Your task to perform on an android device: Open accessibility settings Image 0: 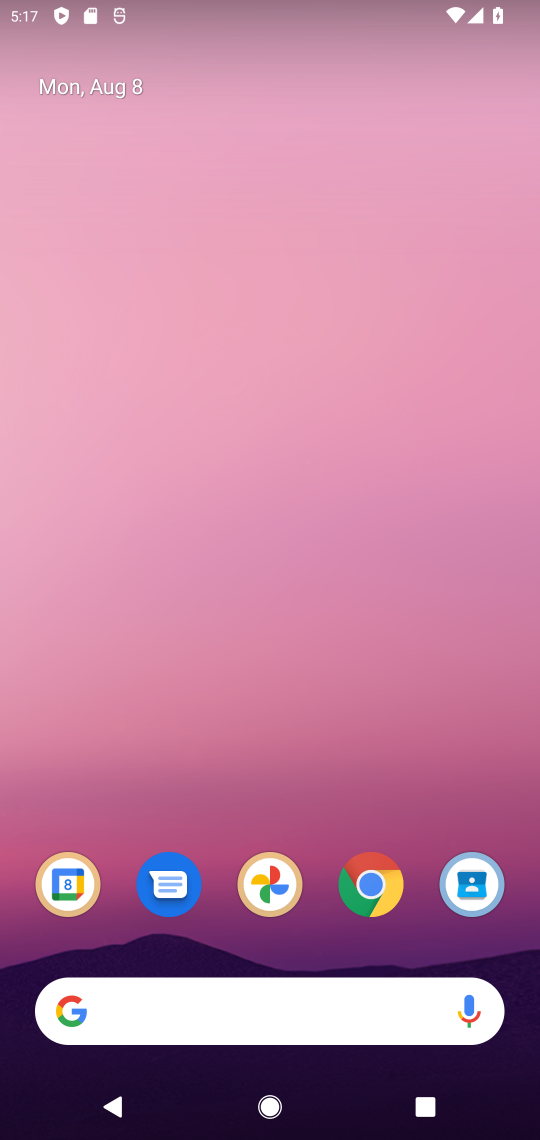
Step 0: drag from (397, 811) to (349, 68)
Your task to perform on an android device: Open accessibility settings Image 1: 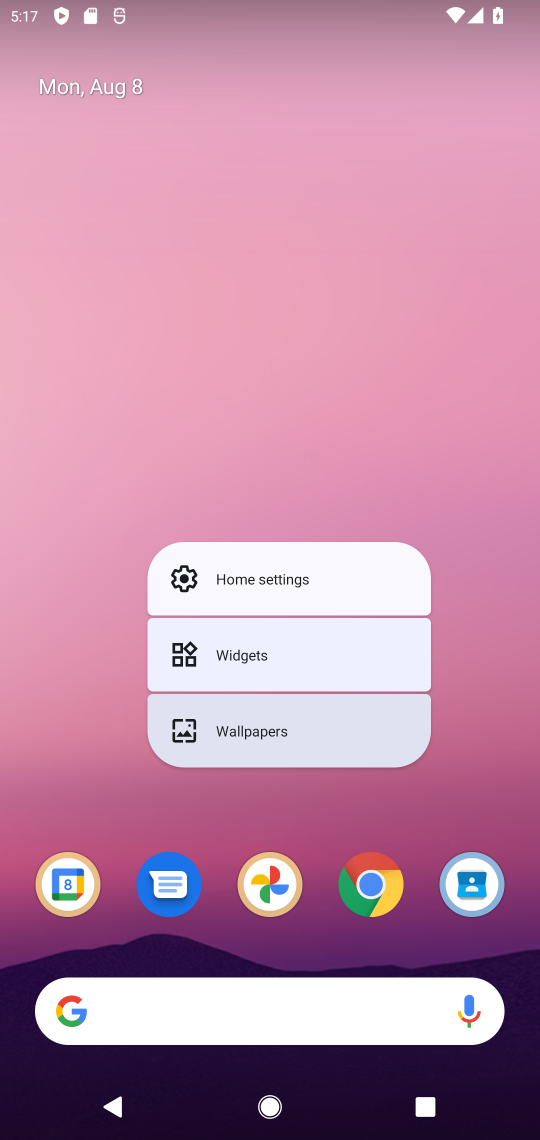
Step 1: drag from (526, 839) to (526, 236)
Your task to perform on an android device: Open accessibility settings Image 2: 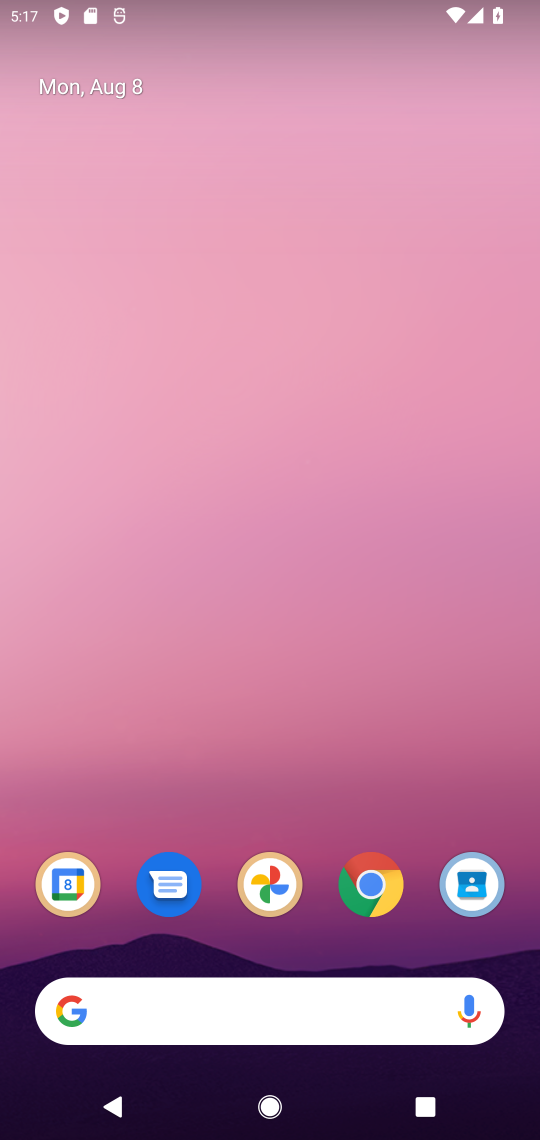
Step 2: drag from (301, 832) to (369, 93)
Your task to perform on an android device: Open accessibility settings Image 3: 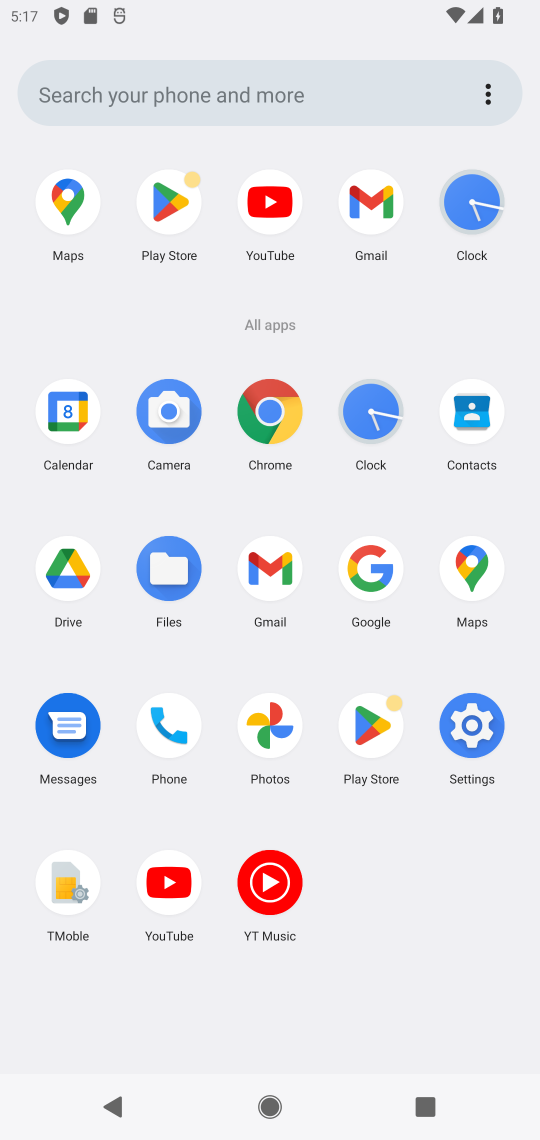
Step 3: click (464, 712)
Your task to perform on an android device: Open accessibility settings Image 4: 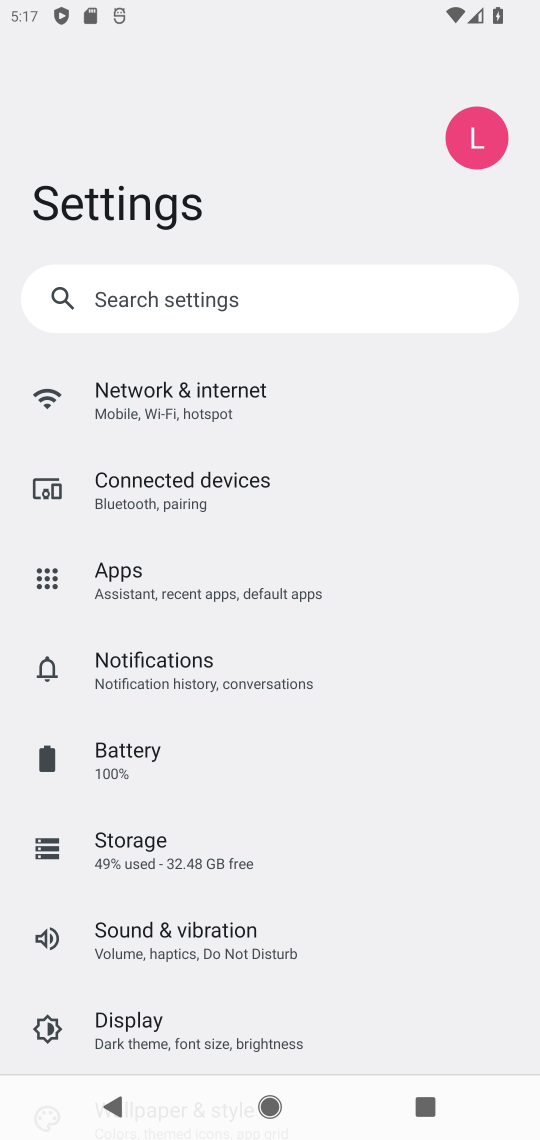
Step 4: drag from (412, 1032) to (306, 424)
Your task to perform on an android device: Open accessibility settings Image 5: 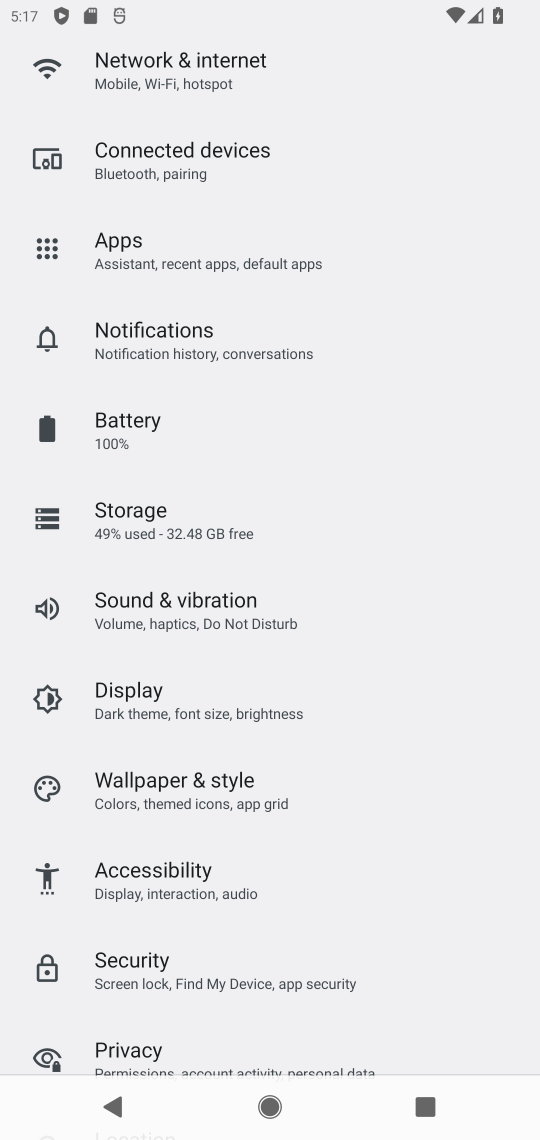
Step 5: click (293, 875)
Your task to perform on an android device: Open accessibility settings Image 6: 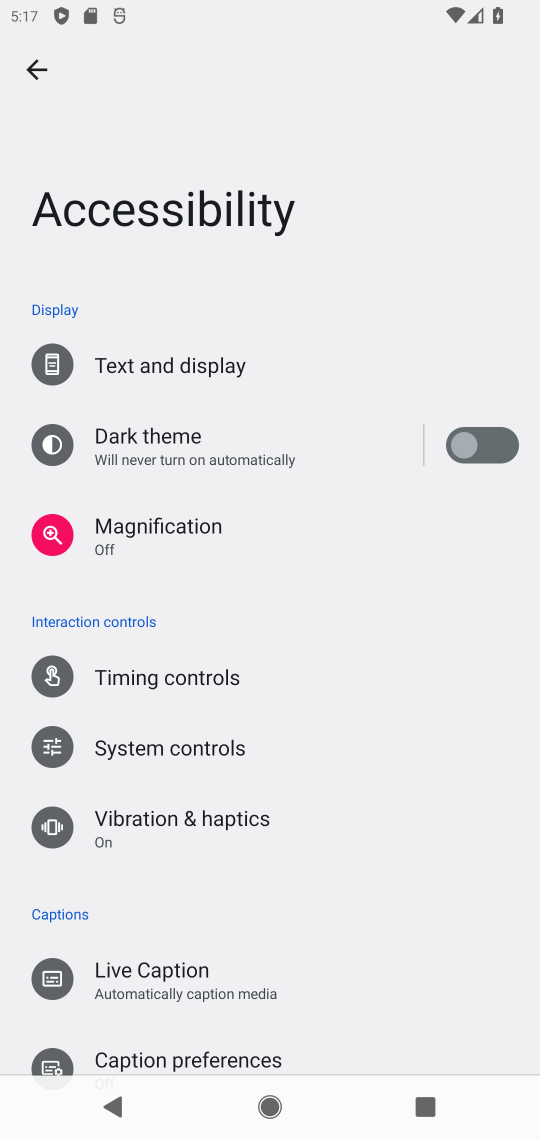
Step 6: task complete